Your task to perform on an android device: Is it going to rain this weekend? Image 0: 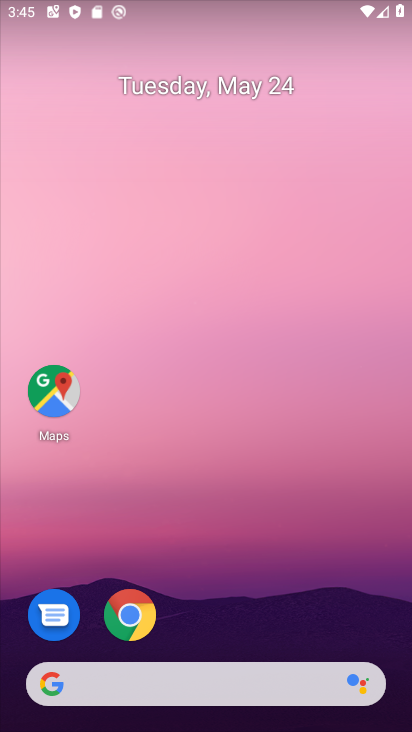
Step 0: drag from (214, 682) to (206, 135)
Your task to perform on an android device: Is it going to rain this weekend? Image 1: 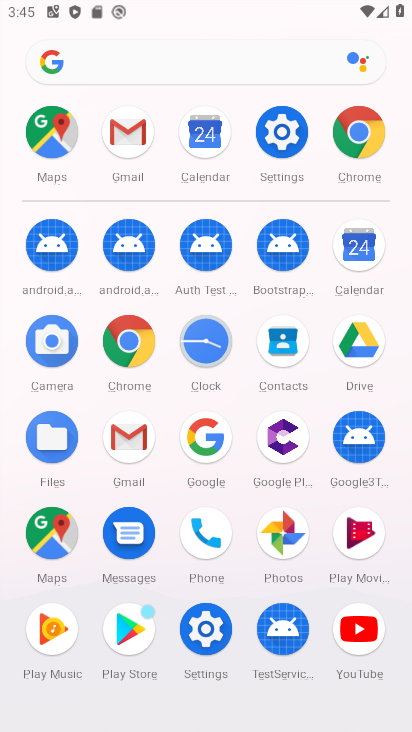
Step 1: click (203, 440)
Your task to perform on an android device: Is it going to rain this weekend? Image 2: 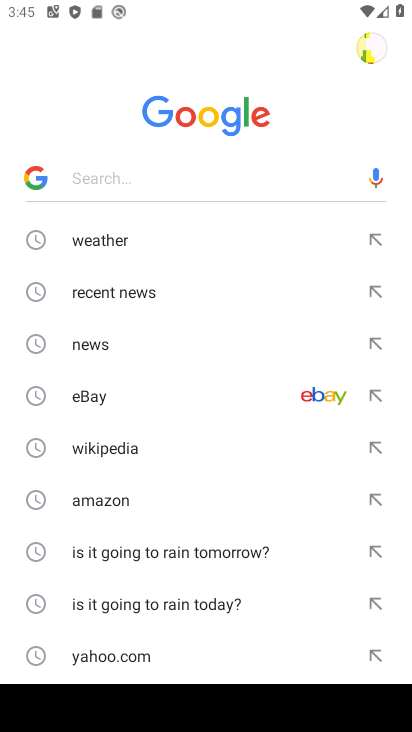
Step 2: click (90, 232)
Your task to perform on an android device: Is it going to rain this weekend? Image 3: 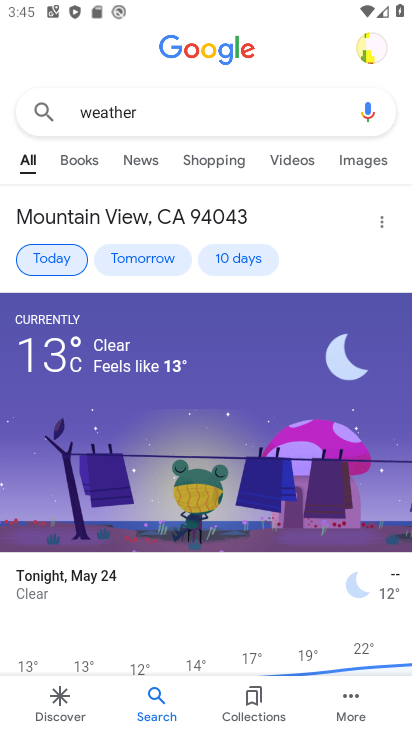
Step 3: drag from (248, 567) to (241, 343)
Your task to perform on an android device: Is it going to rain this weekend? Image 4: 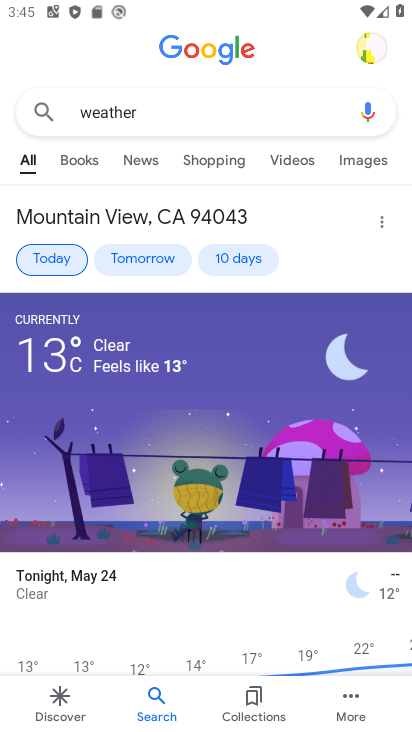
Step 4: click (248, 260)
Your task to perform on an android device: Is it going to rain this weekend? Image 5: 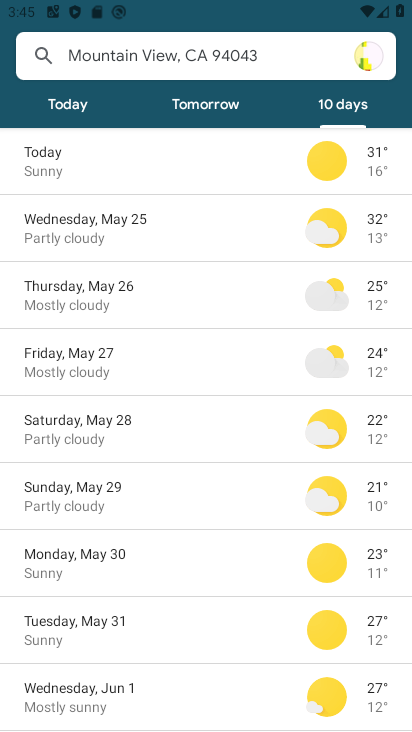
Step 5: click (99, 424)
Your task to perform on an android device: Is it going to rain this weekend? Image 6: 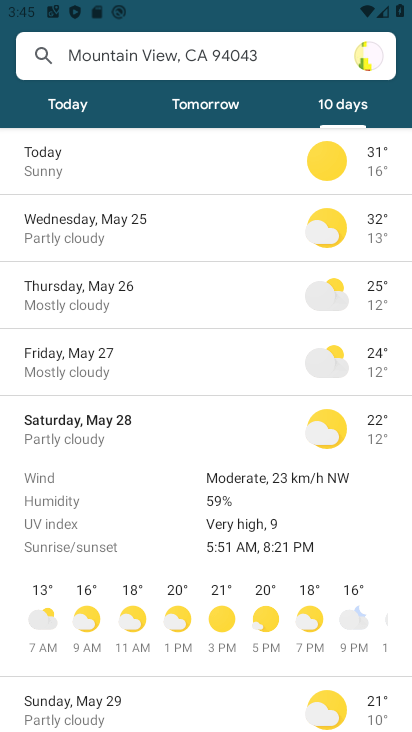
Step 6: task complete